Your task to perform on an android device: toggle improve location accuracy Image 0: 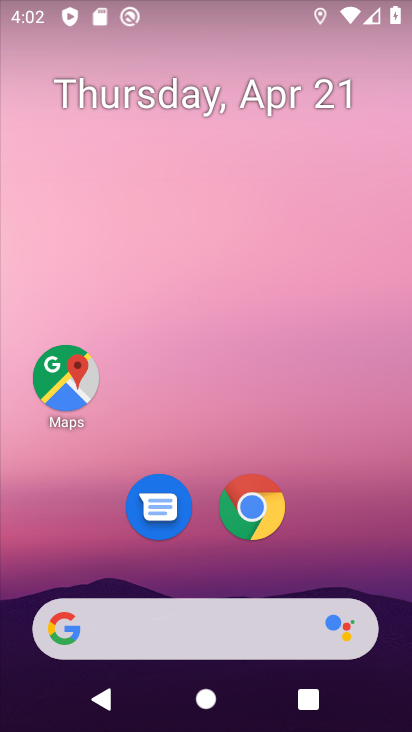
Step 0: click (328, 140)
Your task to perform on an android device: toggle improve location accuracy Image 1: 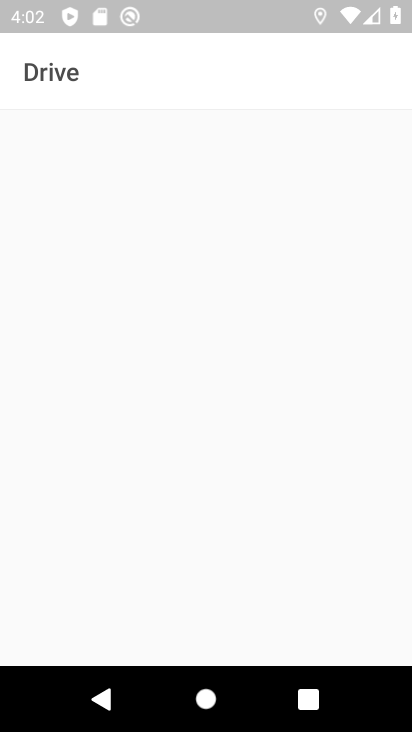
Step 1: drag from (350, 565) to (318, 293)
Your task to perform on an android device: toggle improve location accuracy Image 2: 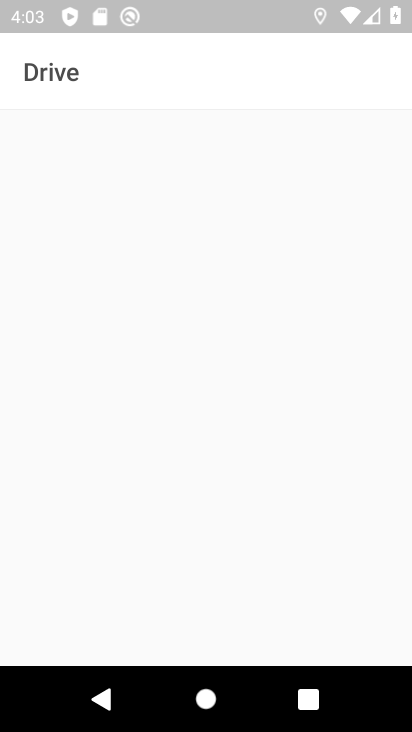
Step 2: press home button
Your task to perform on an android device: toggle improve location accuracy Image 3: 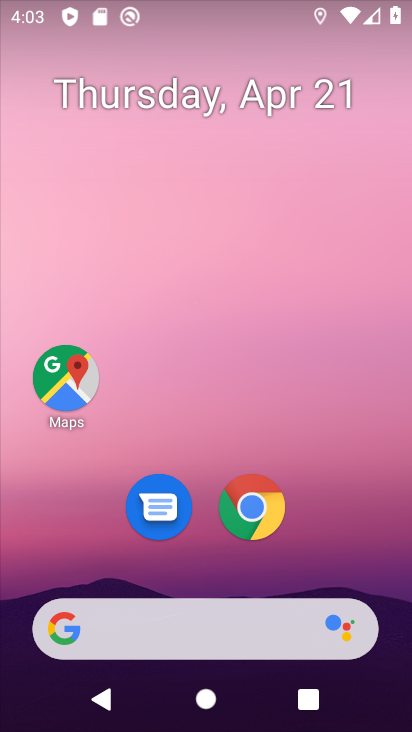
Step 3: drag from (372, 588) to (264, 208)
Your task to perform on an android device: toggle improve location accuracy Image 4: 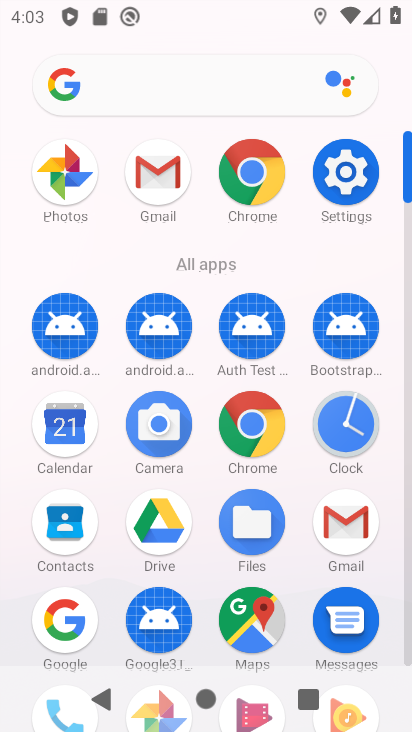
Step 4: click (357, 178)
Your task to perform on an android device: toggle improve location accuracy Image 5: 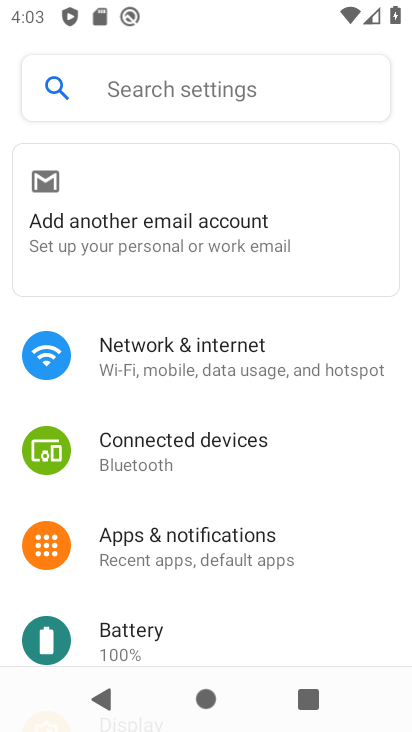
Step 5: drag from (287, 596) to (305, 266)
Your task to perform on an android device: toggle improve location accuracy Image 6: 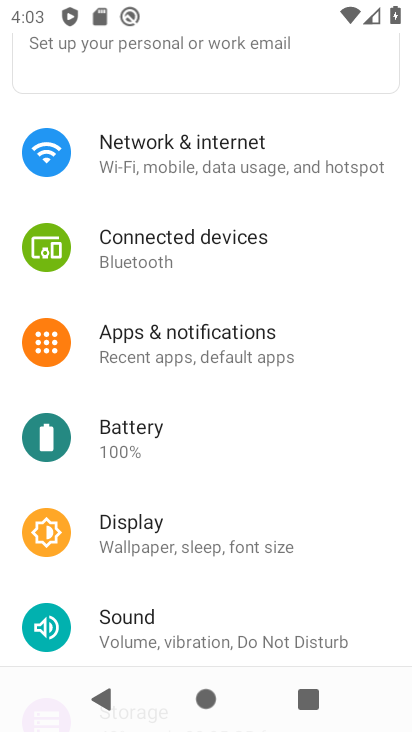
Step 6: drag from (285, 577) to (299, 271)
Your task to perform on an android device: toggle improve location accuracy Image 7: 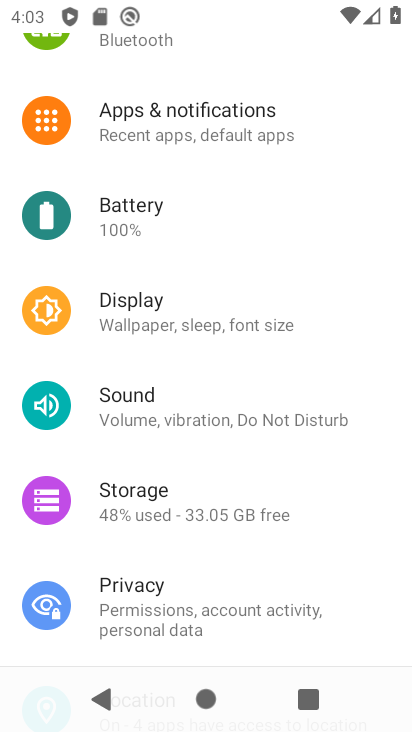
Step 7: drag from (265, 568) to (282, 346)
Your task to perform on an android device: toggle improve location accuracy Image 8: 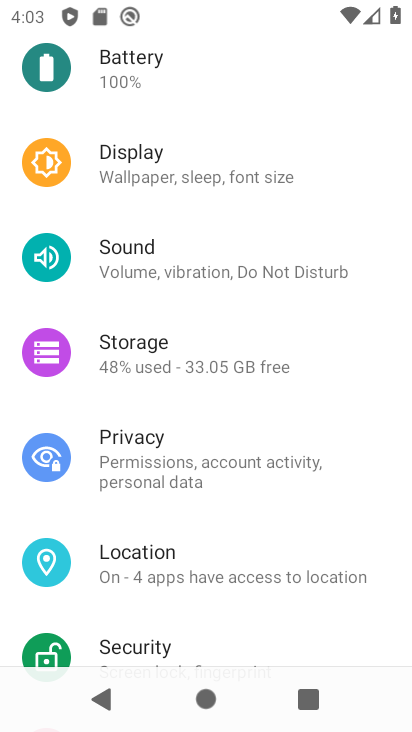
Step 8: click (255, 583)
Your task to perform on an android device: toggle improve location accuracy Image 9: 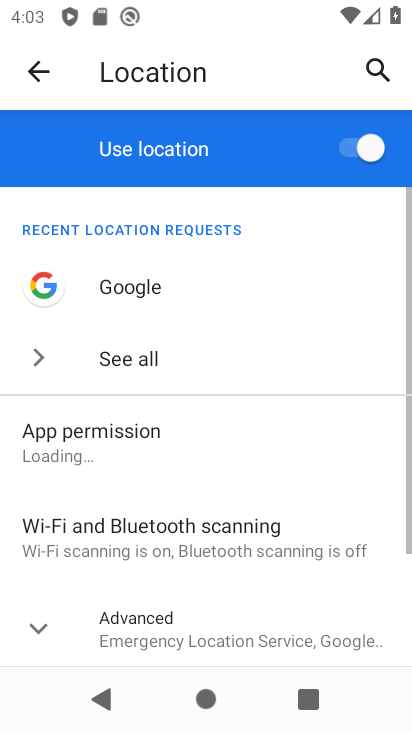
Step 9: drag from (255, 583) to (255, 330)
Your task to perform on an android device: toggle improve location accuracy Image 10: 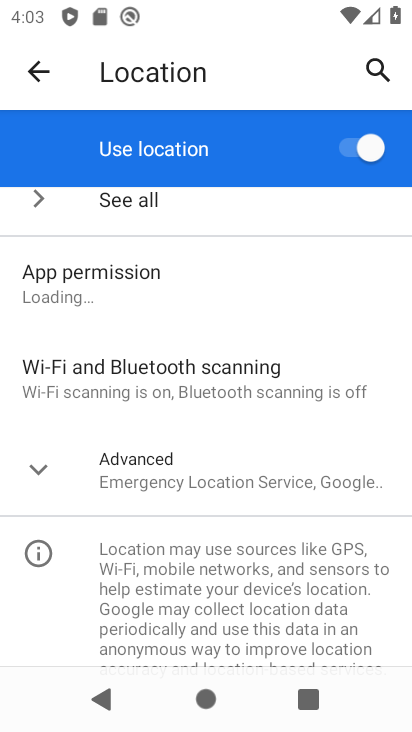
Step 10: click (277, 479)
Your task to perform on an android device: toggle improve location accuracy Image 11: 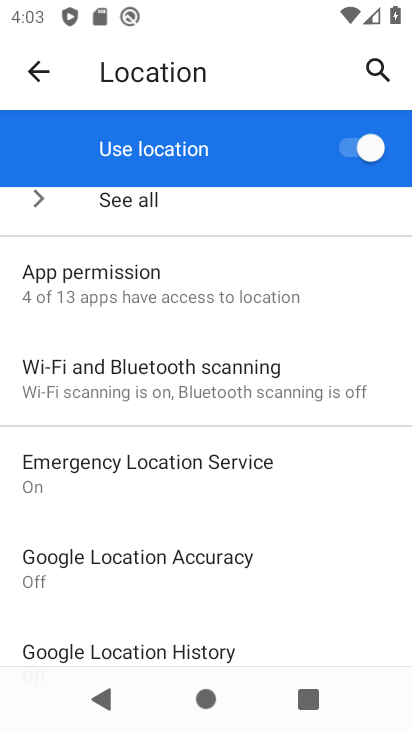
Step 11: drag from (286, 506) to (281, 289)
Your task to perform on an android device: toggle improve location accuracy Image 12: 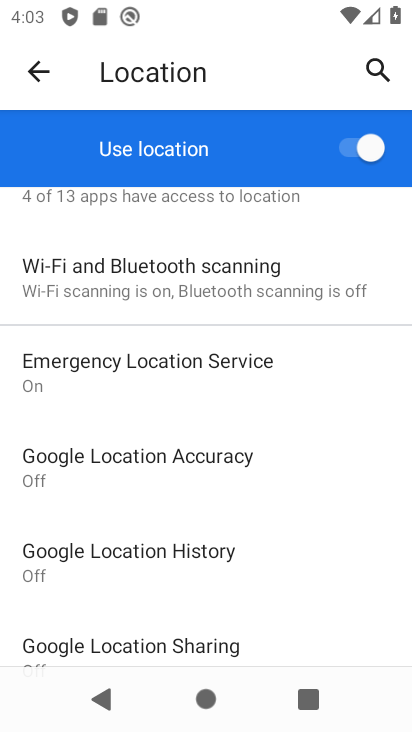
Step 12: click (296, 443)
Your task to perform on an android device: toggle improve location accuracy Image 13: 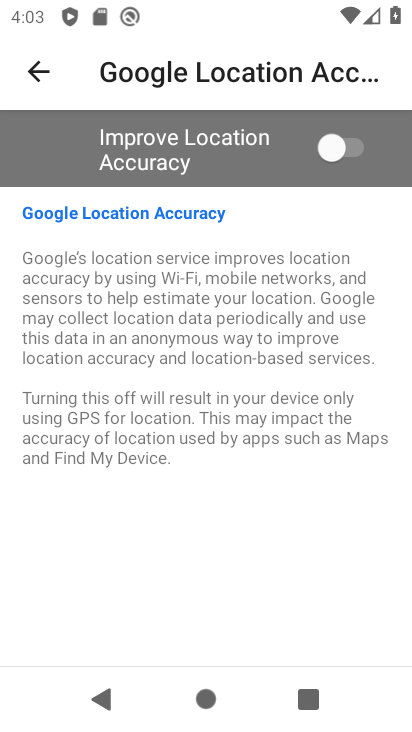
Step 13: click (357, 147)
Your task to perform on an android device: toggle improve location accuracy Image 14: 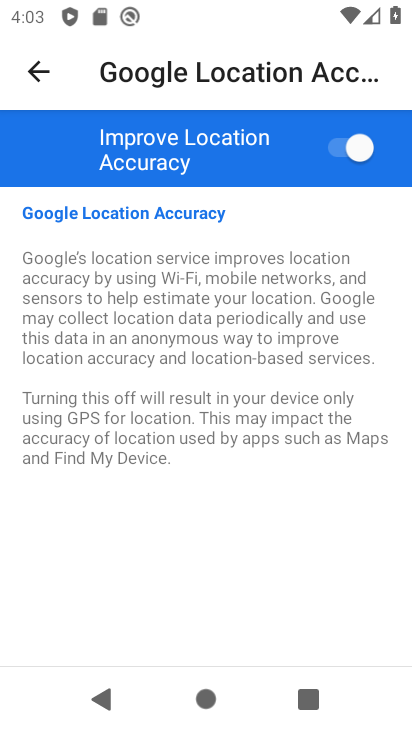
Step 14: task complete